Your task to perform on an android device: change the clock display to digital Image 0: 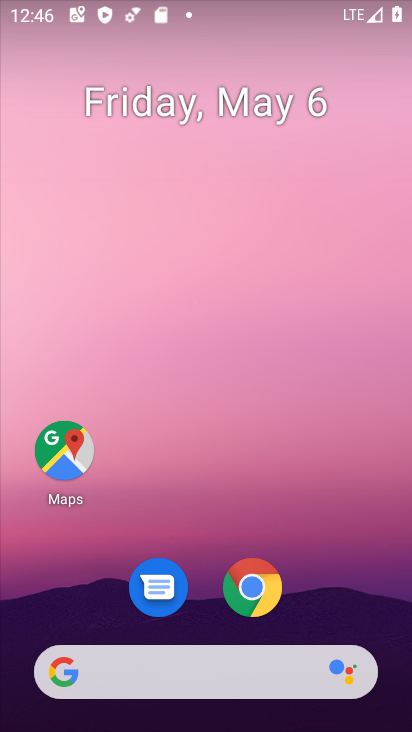
Step 0: drag from (22, 576) to (182, 197)
Your task to perform on an android device: change the clock display to digital Image 1: 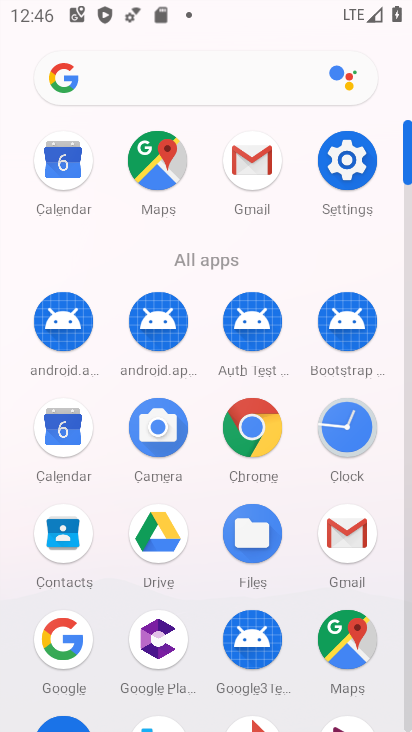
Step 1: click (338, 421)
Your task to perform on an android device: change the clock display to digital Image 2: 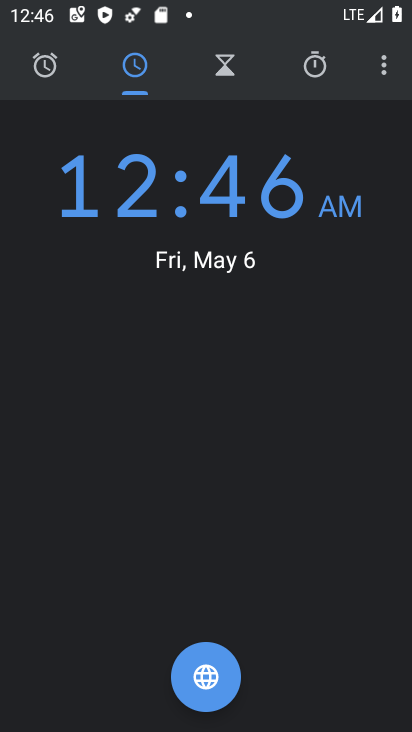
Step 2: click (378, 66)
Your task to perform on an android device: change the clock display to digital Image 3: 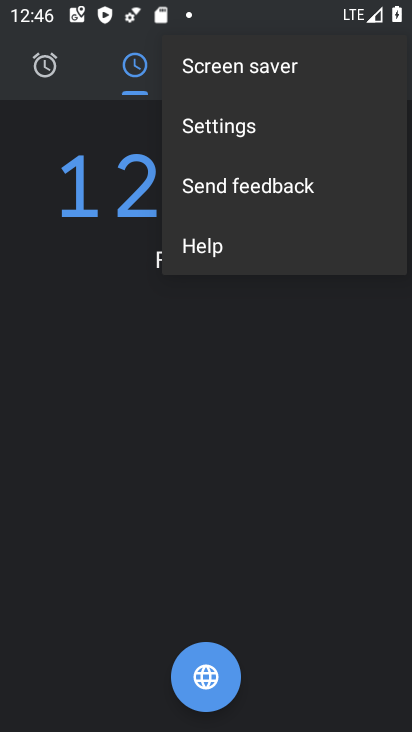
Step 3: click (252, 123)
Your task to perform on an android device: change the clock display to digital Image 4: 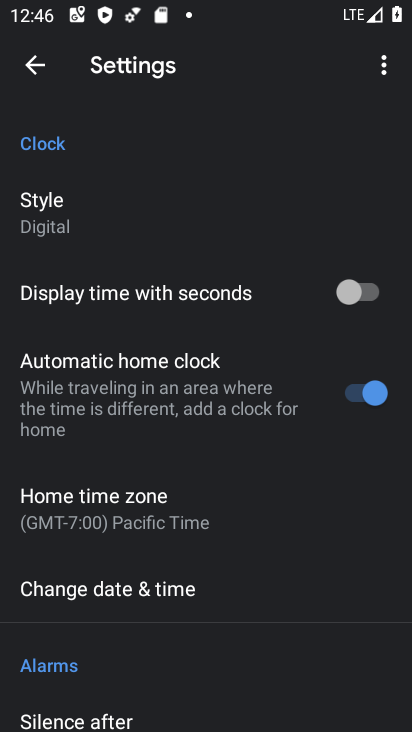
Step 4: task complete